Your task to perform on an android device: Open Reddit.com Image 0: 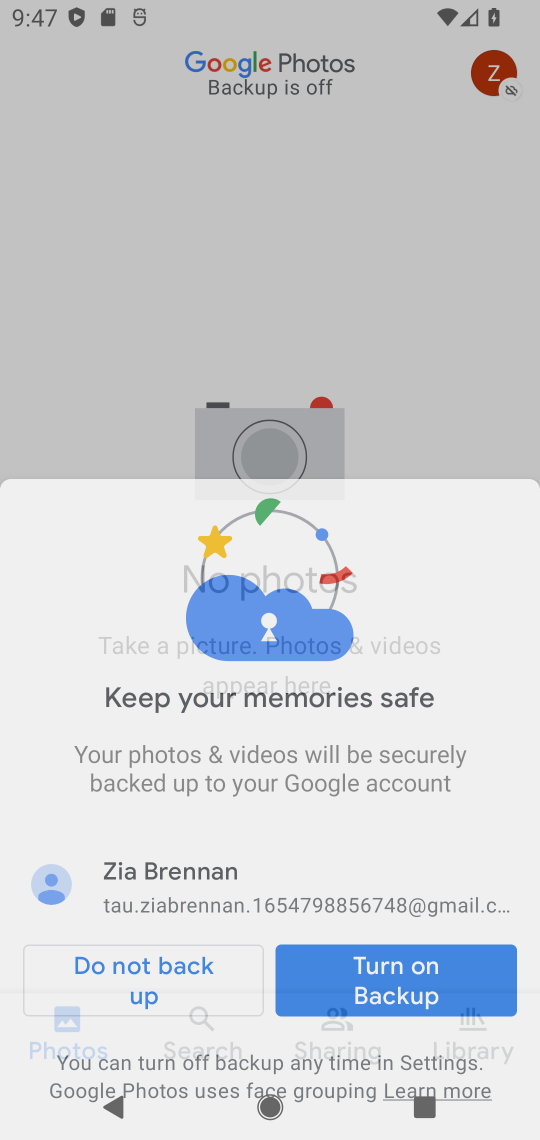
Step 0: press home button
Your task to perform on an android device: Open Reddit.com Image 1: 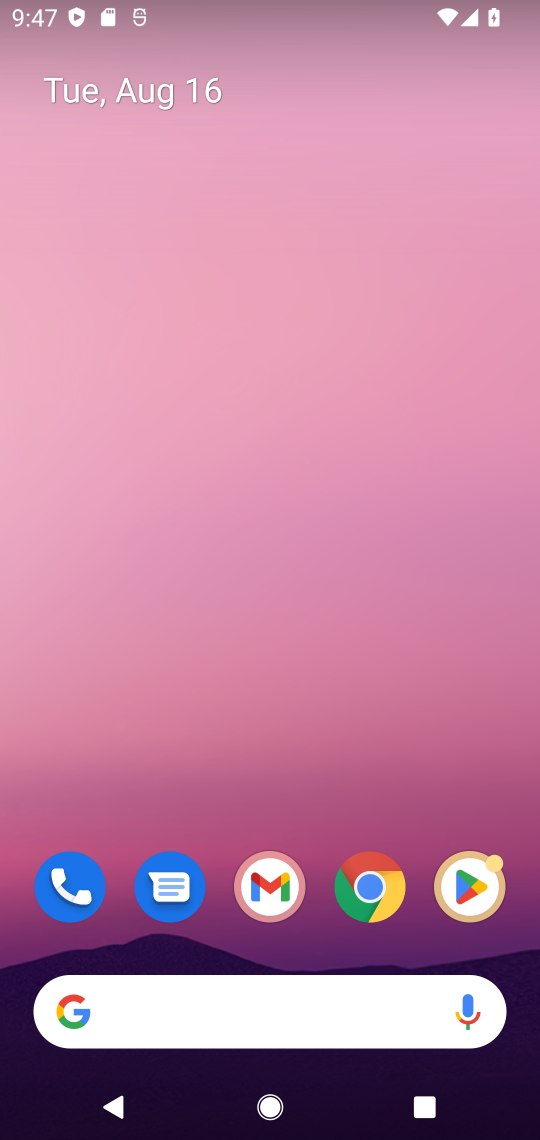
Step 1: drag from (420, 806) to (400, 143)
Your task to perform on an android device: Open Reddit.com Image 2: 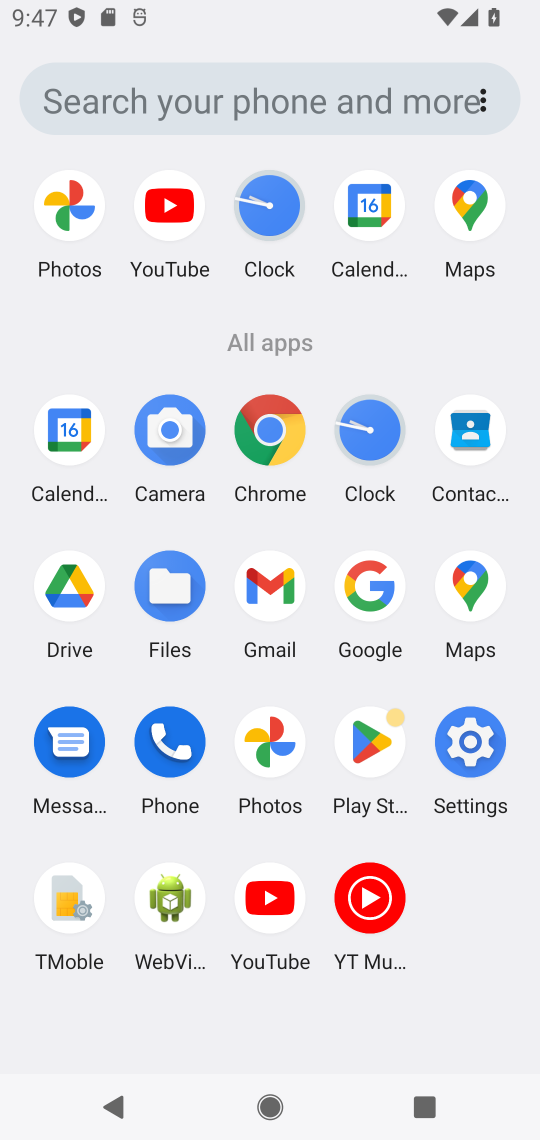
Step 2: click (277, 420)
Your task to perform on an android device: Open Reddit.com Image 3: 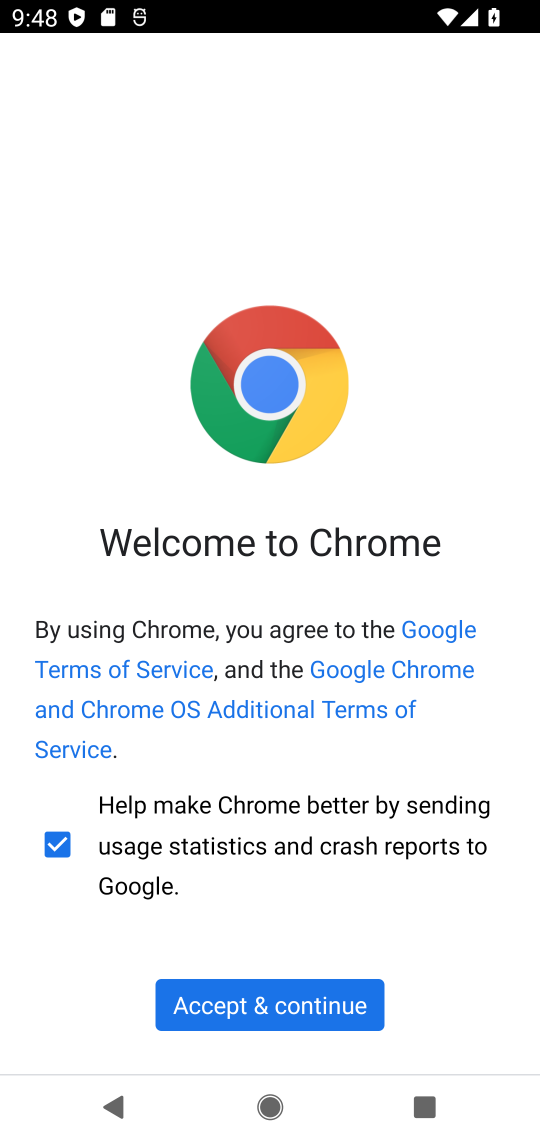
Step 3: click (315, 1005)
Your task to perform on an android device: Open Reddit.com Image 4: 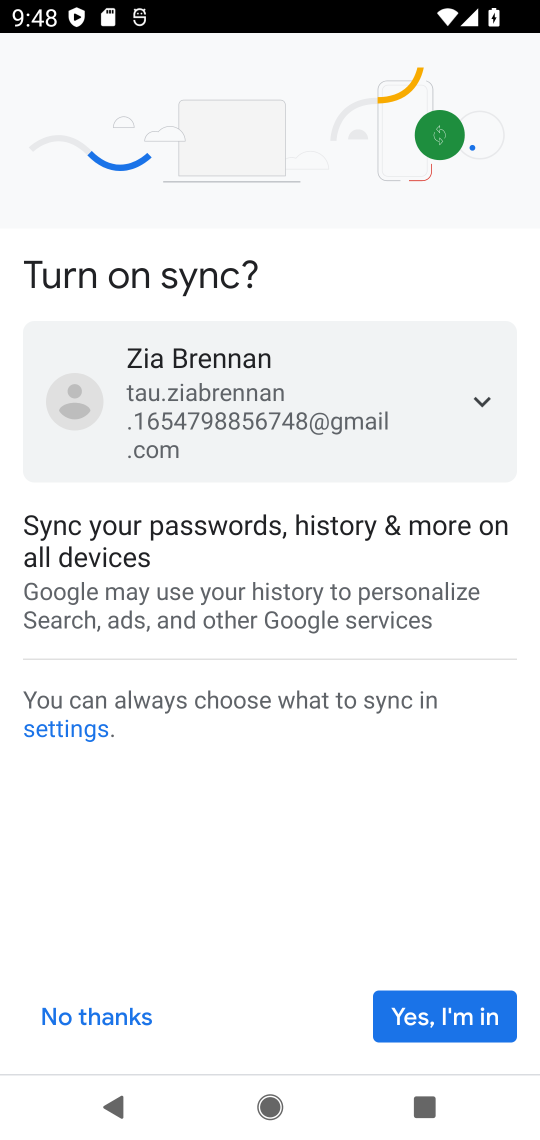
Step 4: click (399, 1013)
Your task to perform on an android device: Open Reddit.com Image 5: 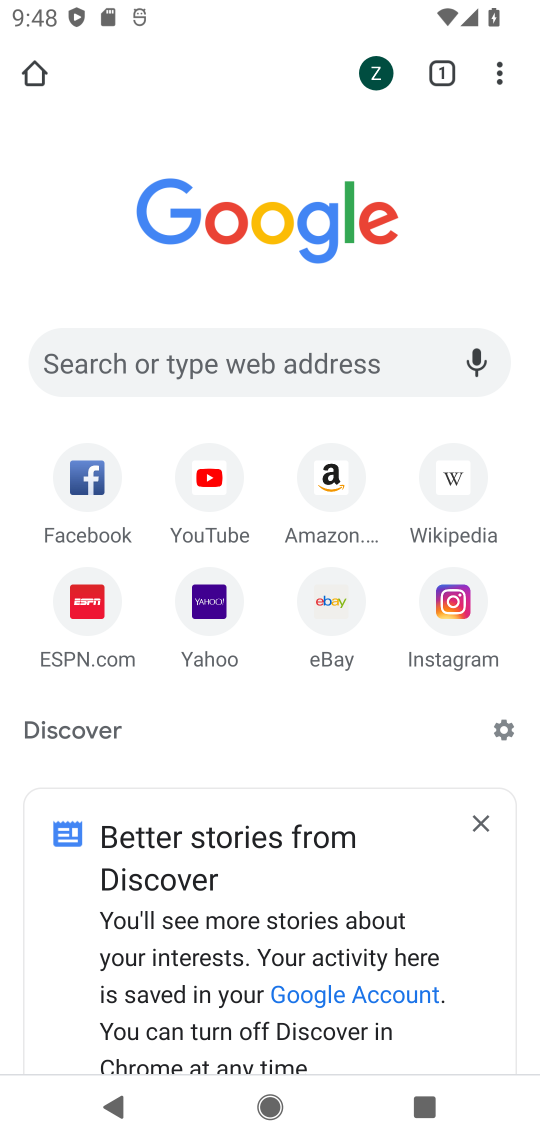
Step 5: click (366, 365)
Your task to perform on an android device: Open Reddit.com Image 6: 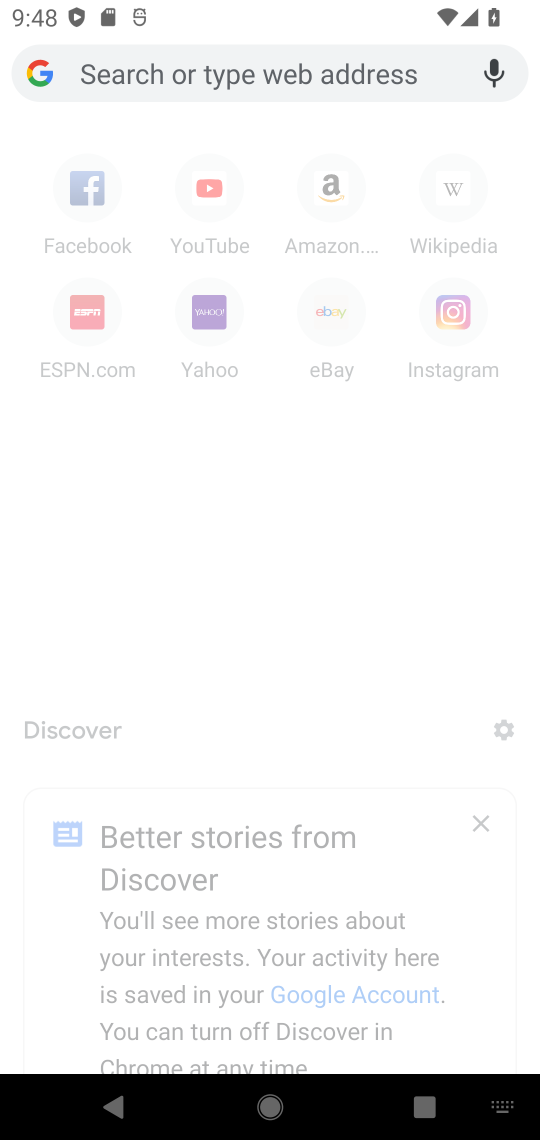
Step 6: type "reddit.com"
Your task to perform on an android device: Open Reddit.com Image 7: 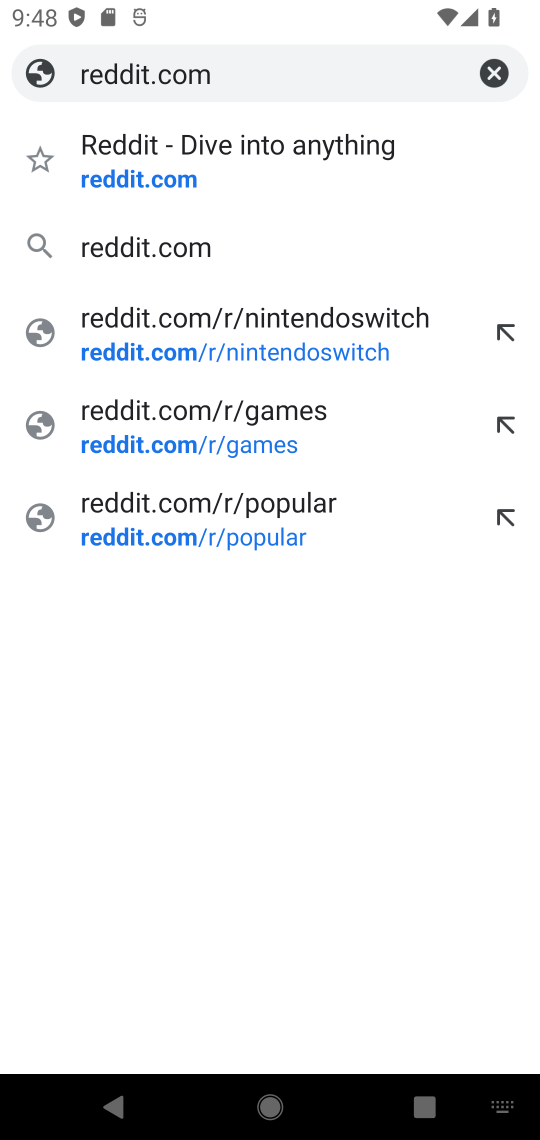
Step 7: click (181, 238)
Your task to perform on an android device: Open Reddit.com Image 8: 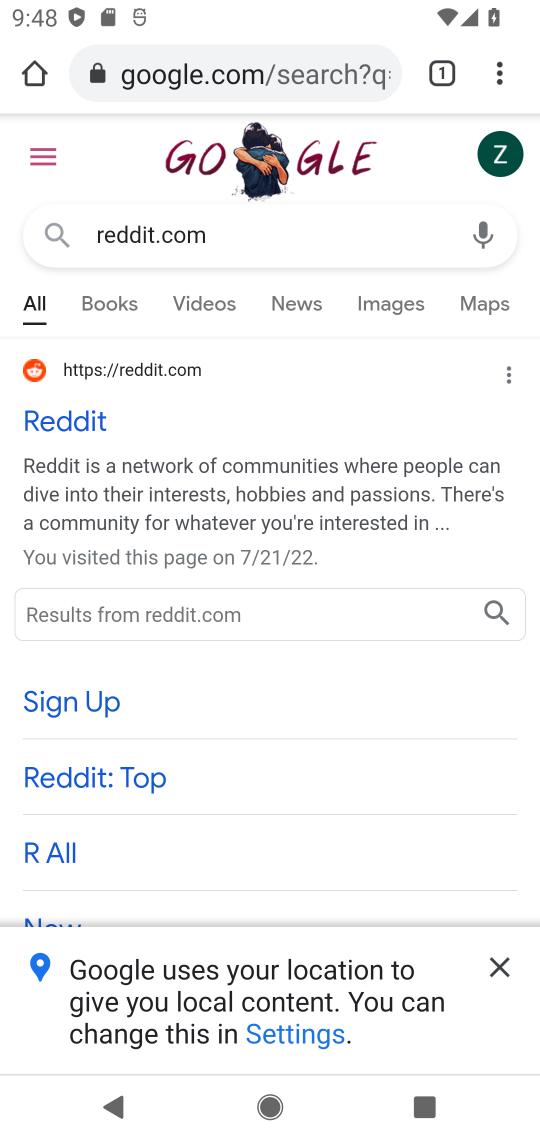
Step 8: task complete